Your task to perform on an android device: turn notification dots off Image 0: 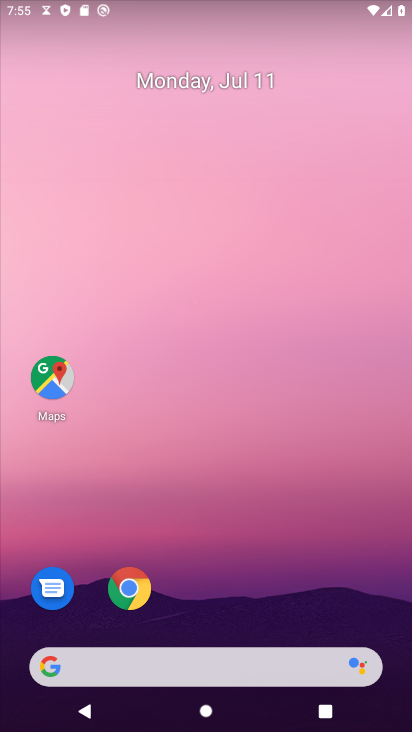
Step 0: press home button
Your task to perform on an android device: turn notification dots off Image 1: 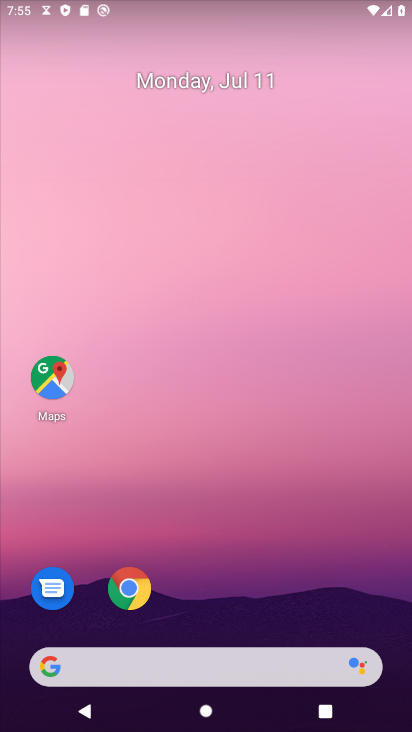
Step 1: drag from (277, 562) to (297, 0)
Your task to perform on an android device: turn notification dots off Image 2: 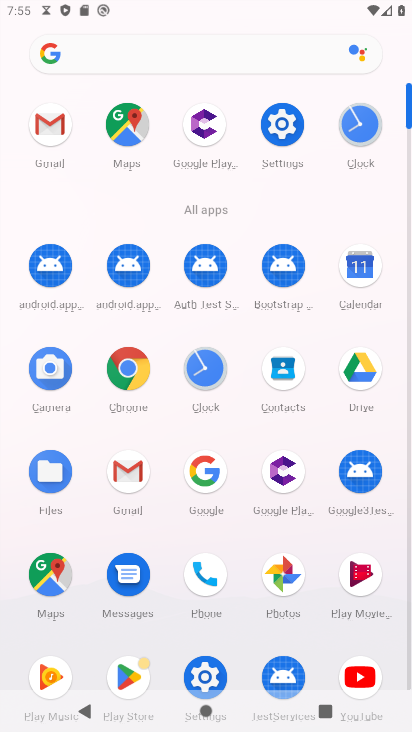
Step 2: click (285, 120)
Your task to perform on an android device: turn notification dots off Image 3: 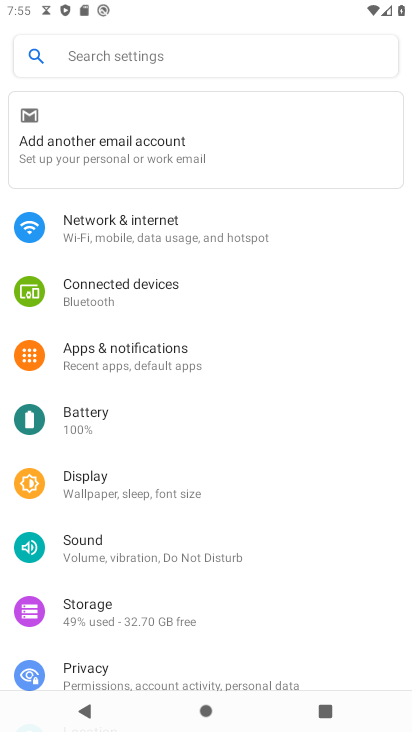
Step 3: click (174, 360)
Your task to perform on an android device: turn notification dots off Image 4: 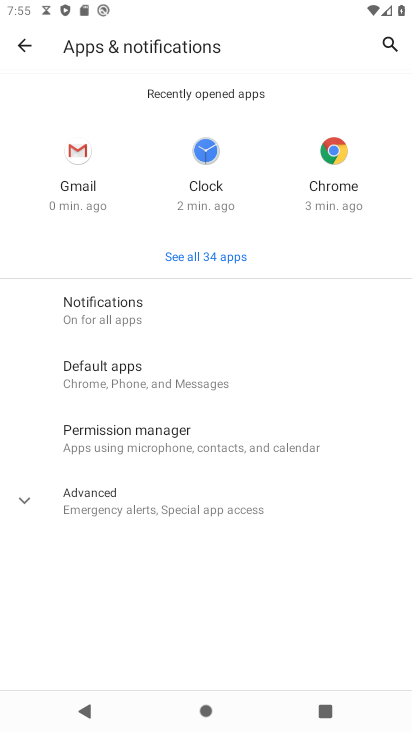
Step 4: click (102, 308)
Your task to perform on an android device: turn notification dots off Image 5: 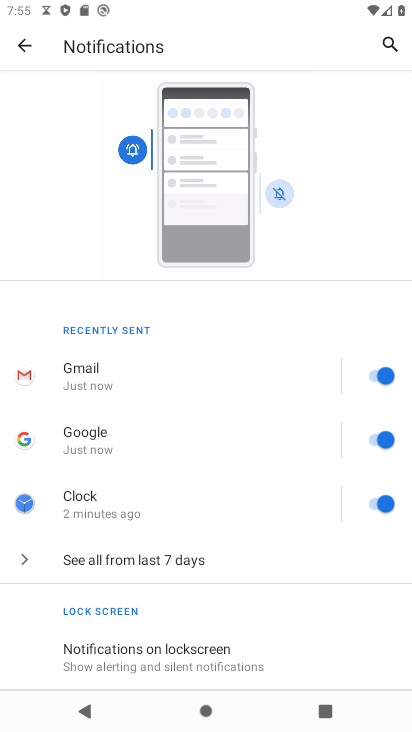
Step 5: drag from (239, 597) to (164, 307)
Your task to perform on an android device: turn notification dots off Image 6: 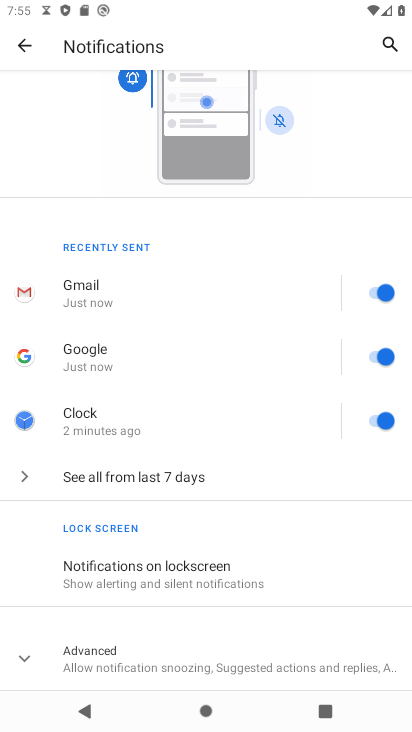
Step 6: click (59, 651)
Your task to perform on an android device: turn notification dots off Image 7: 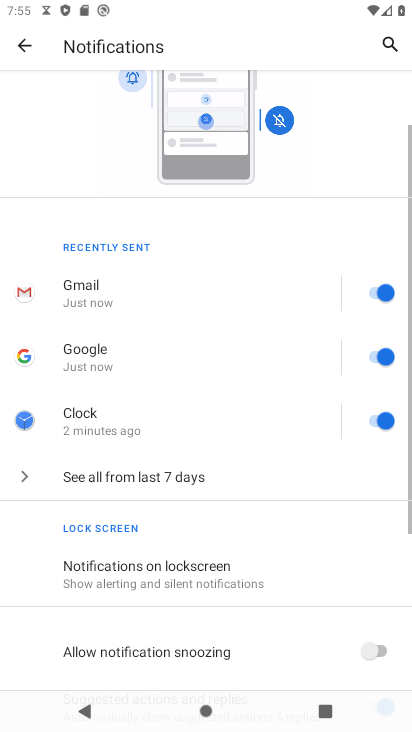
Step 7: drag from (236, 606) to (243, 432)
Your task to perform on an android device: turn notification dots off Image 8: 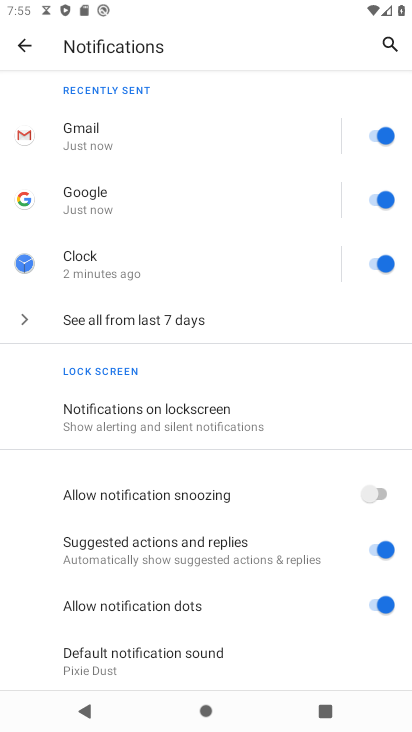
Step 8: click (374, 607)
Your task to perform on an android device: turn notification dots off Image 9: 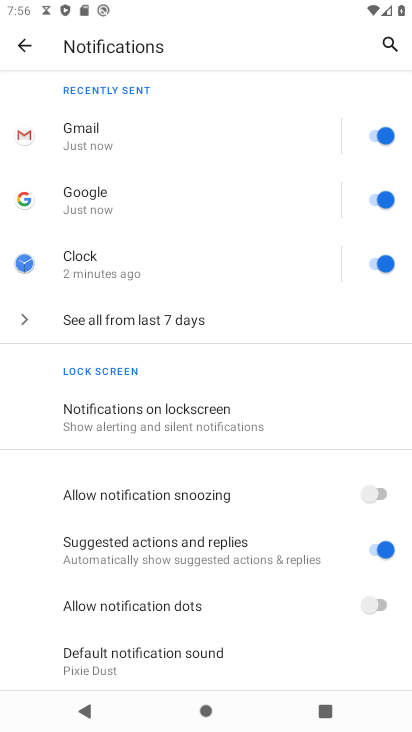
Step 9: task complete